Your task to perform on an android device: turn off priority inbox in the gmail app Image 0: 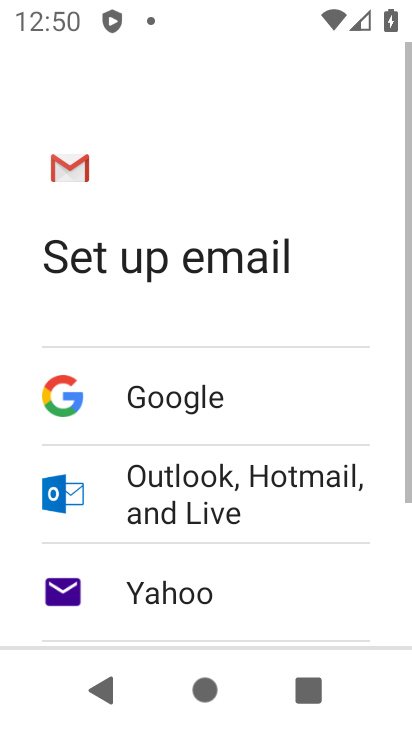
Step 0: press home button
Your task to perform on an android device: turn off priority inbox in the gmail app Image 1: 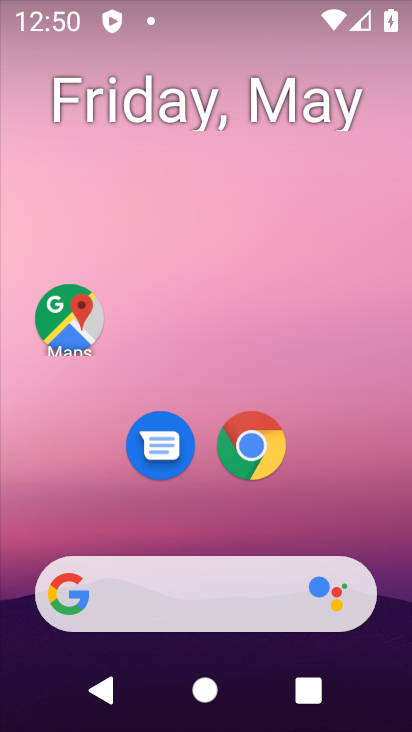
Step 1: drag from (214, 525) to (221, 3)
Your task to perform on an android device: turn off priority inbox in the gmail app Image 2: 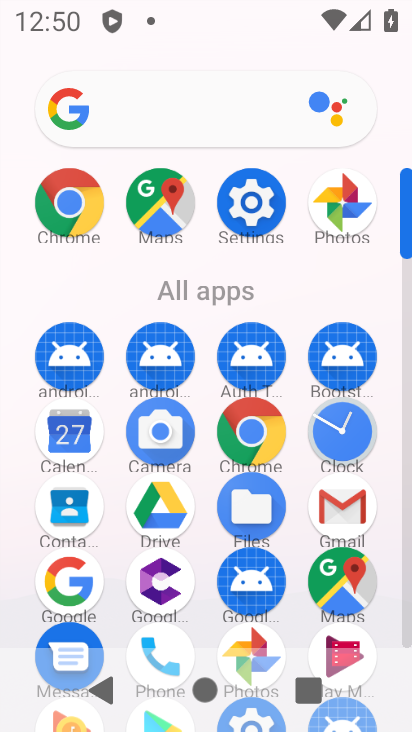
Step 2: click (354, 502)
Your task to perform on an android device: turn off priority inbox in the gmail app Image 3: 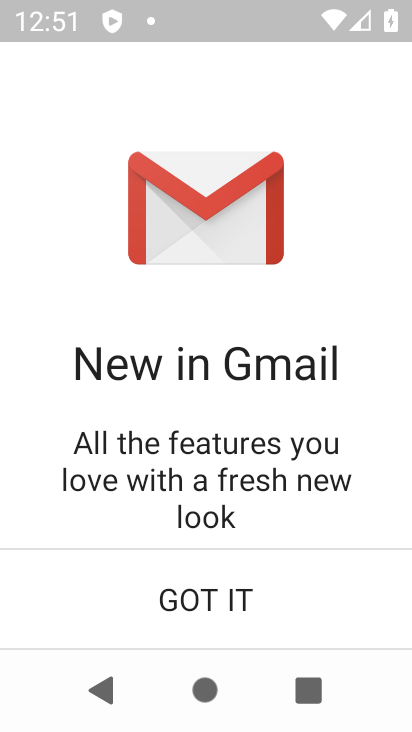
Step 3: click (246, 589)
Your task to perform on an android device: turn off priority inbox in the gmail app Image 4: 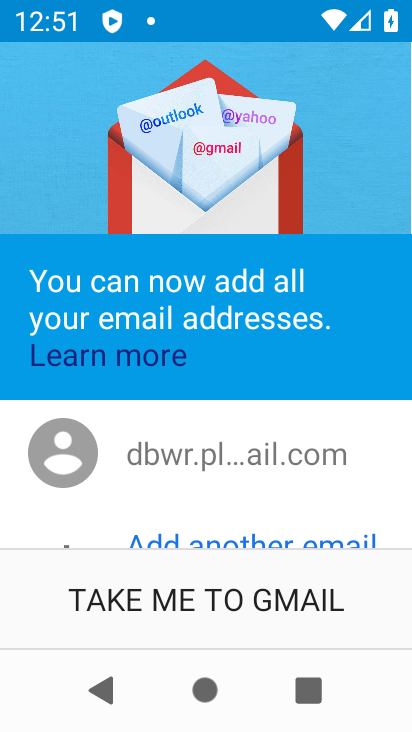
Step 4: click (237, 607)
Your task to perform on an android device: turn off priority inbox in the gmail app Image 5: 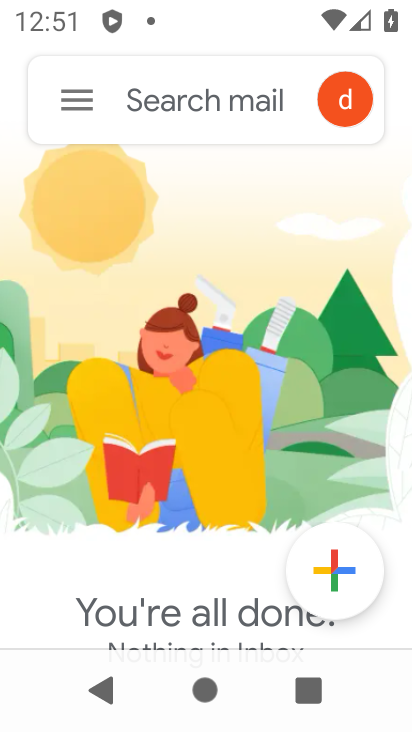
Step 5: click (83, 93)
Your task to perform on an android device: turn off priority inbox in the gmail app Image 6: 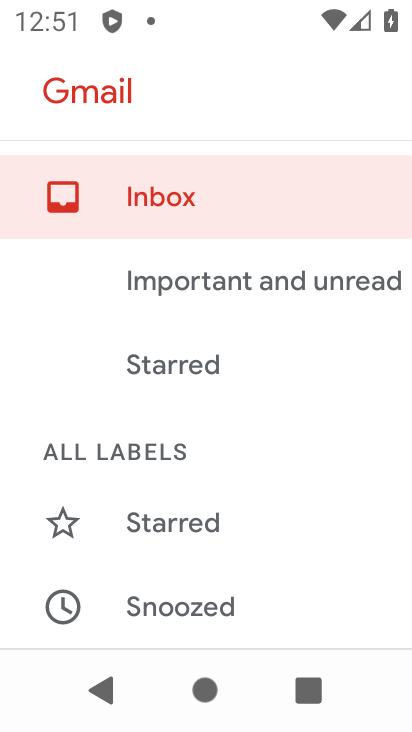
Step 6: drag from (160, 570) to (171, 4)
Your task to perform on an android device: turn off priority inbox in the gmail app Image 7: 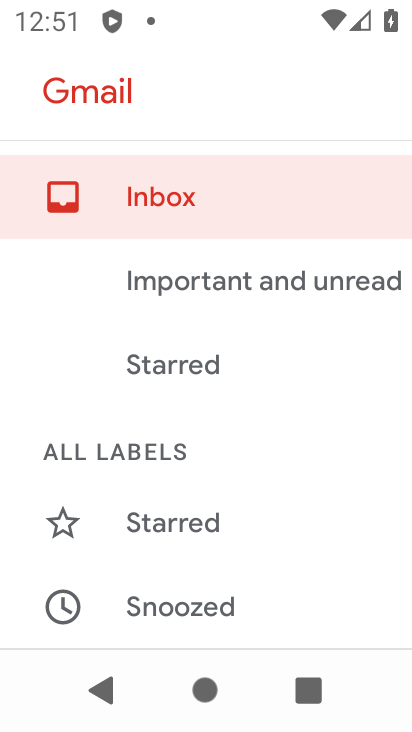
Step 7: drag from (260, 564) to (193, 7)
Your task to perform on an android device: turn off priority inbox in the gmail app Image 8: 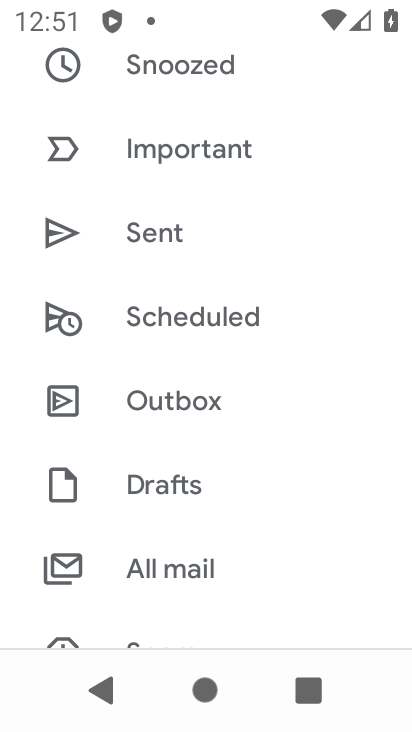
Step 8: drag from (158, 566) to (165, 1)
Your task to perform on an android device: turn off priority inbox in the gmail app Image 9: 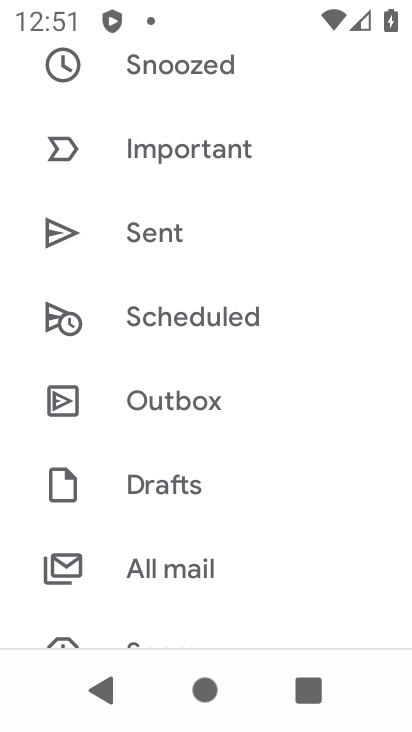
Step 9: drag from (135, 429) to (161, 7)
Your task to perform on an android device: turn off priority inbox in the gmail app Image 10: 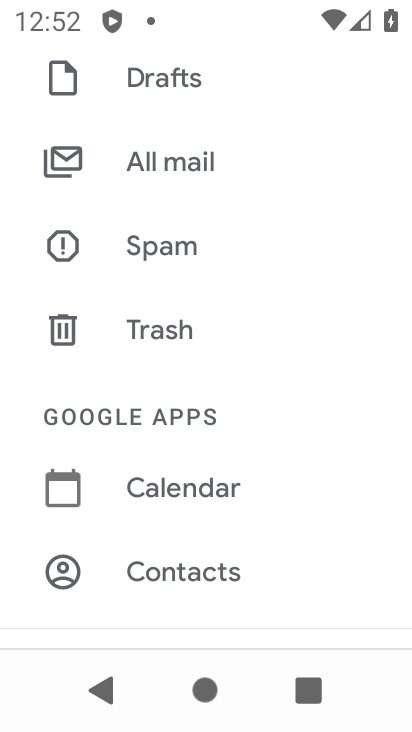
Step 10: drag from (182, 574) to (177, 120)
Your task to perform on an android device: turn off priority inbox in the gmail app Image 11: 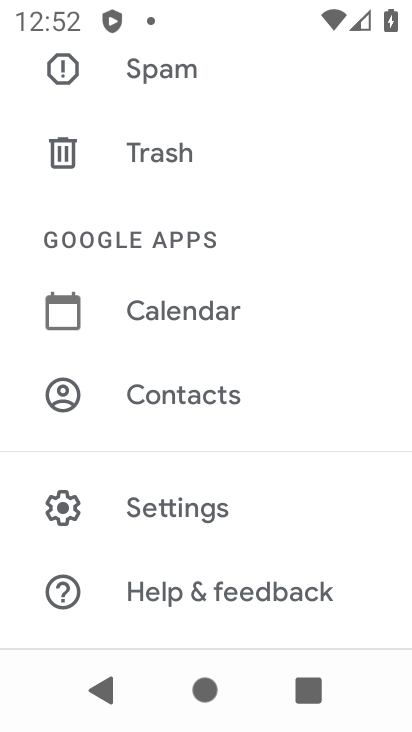
Step 11: click (151, 508)
Your task to perform on an android device: turn off priority inbox in the gmail app Image 12: 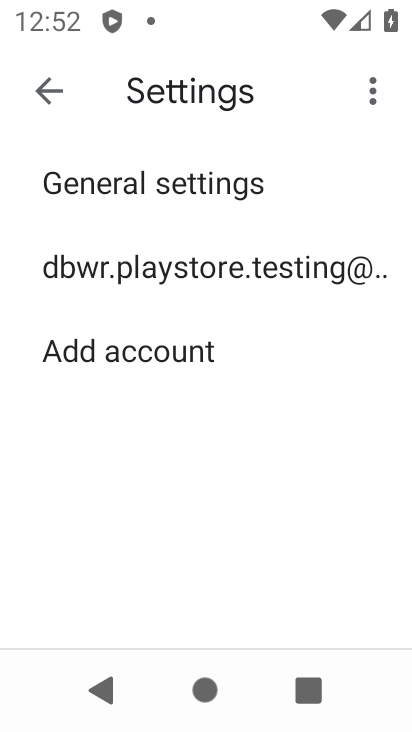
Step 12: click (83, 256)
Your task to perform on an android device: turn off priority inbox in the gmail app Image 13: 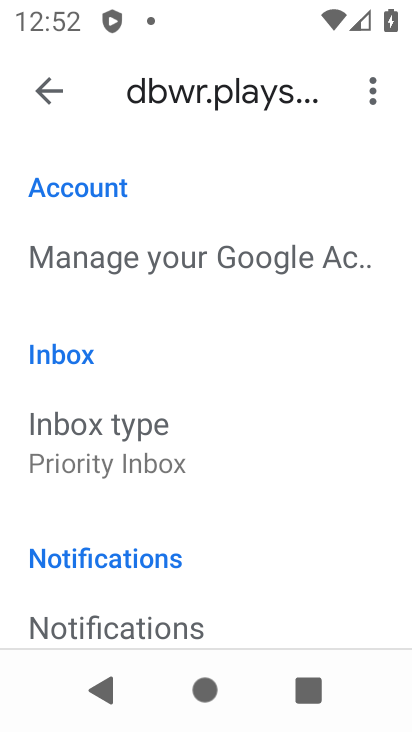
Step 13: click (87, 449)
Your task to perform on an android device: turn off priority inbox in the gmail app Image 14: 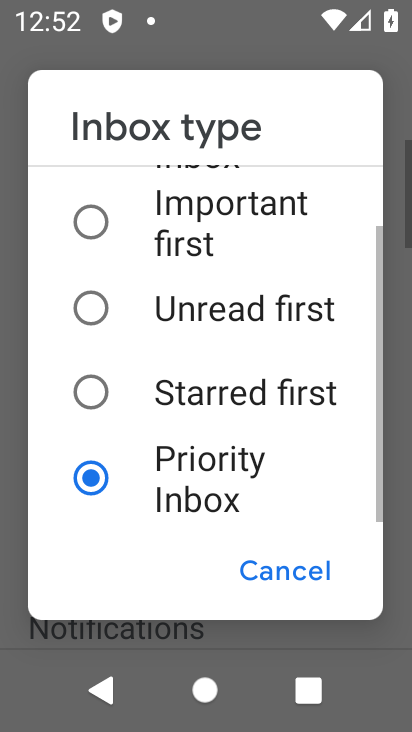
Step 14: drag from (211, 241) to (229, 526)
Your task to perform on an android device: turn off priority inbox in the gmail app Image 15: 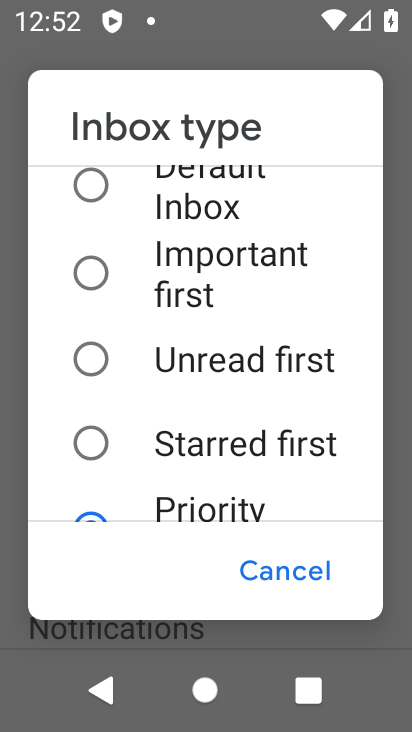
Step 15: click (196, 186)
Your task to perform on an android device: turn off priority inbox in the gmail app Image 16: 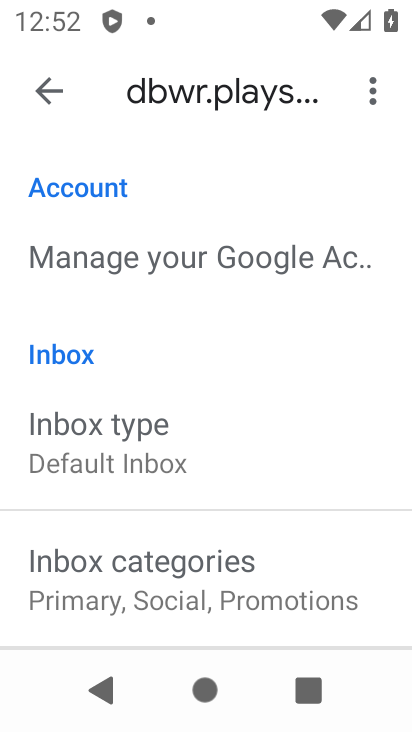
Step 16: task complete